Your task to perform on an android device: choose inbox layout in the gmail app Image 0: 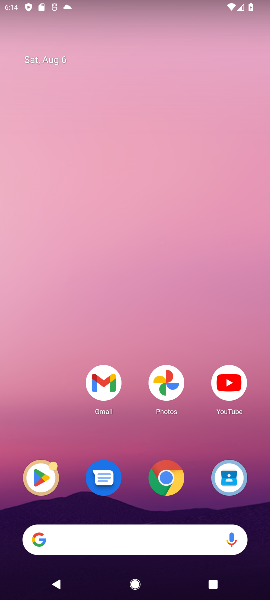
Step 0: press home button
Your task to perform on an android device: choose inbox layout in the gmail app Image 1: 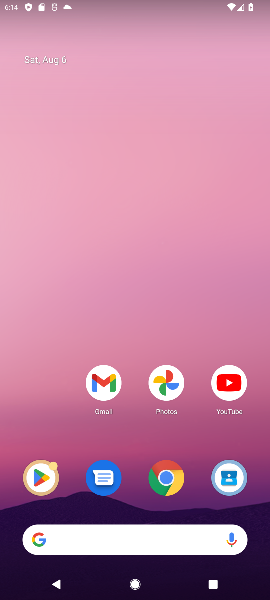
Step 1: drag from (151, 466) to (155, 130)
Your task to perform on an android device: choose inbox layout in the gmail app Image 2: 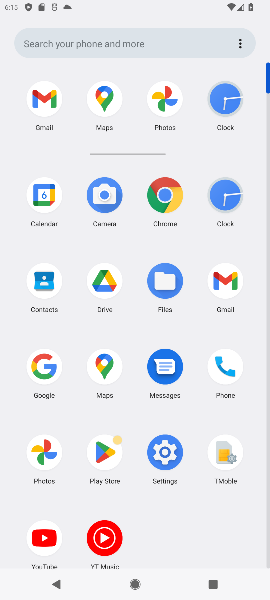
Step 2: click (42, 99)
Your task to perform on an android device: choose inbox layout in the gmail app Image 3: 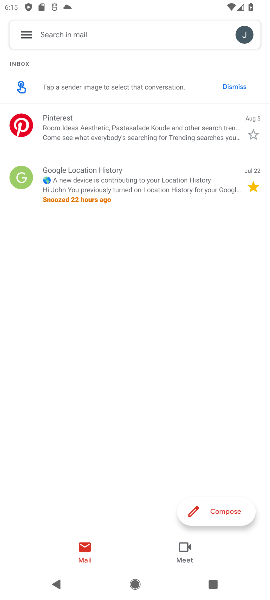
Step 3: click (27, 38)
Your task to perform on an android device: choose inbox layout in the gmail app Image 4: 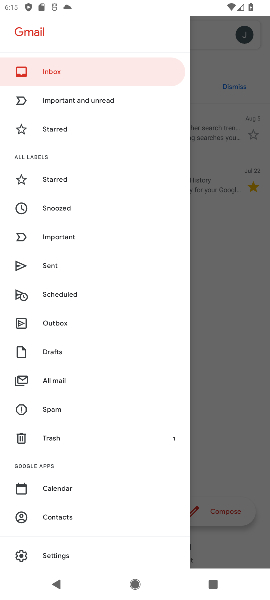
Step 4: click (49, 559)
Your task to perform on an android device: choose inbox layout in the gmail app Image 5: 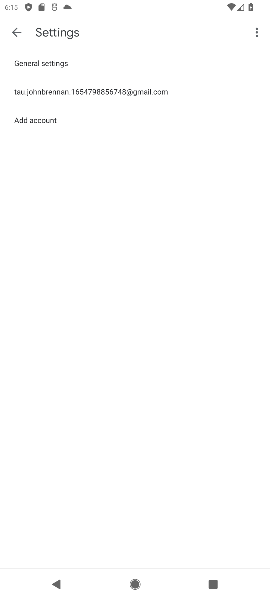
Step 5: click (82, 91)
Your task to perform on an android device: choose inbox layout in the gmail app Image 6: 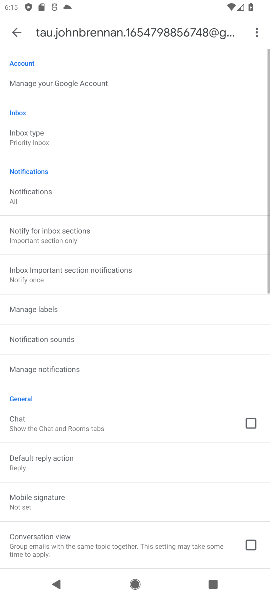
Step 6: click (36, 134)
Your task to perform on an android device: choose inbox layout in the gmail app Image 7: 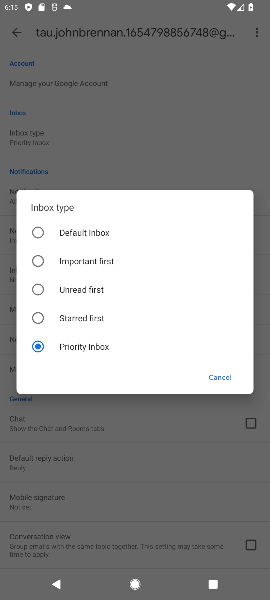
Step 7: click (41, 231)
Your task to perform on an android device: choose inbox layout in the gmail app Image 8: 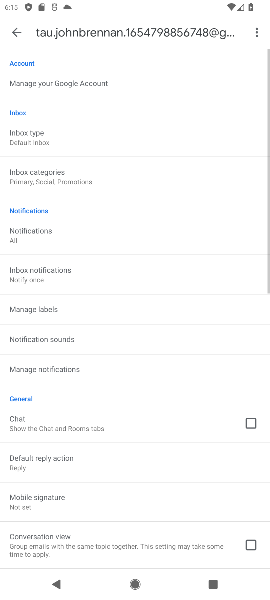
Step 8: task complete